Your task to perform on an android device: Open ESPN.com Image 0: 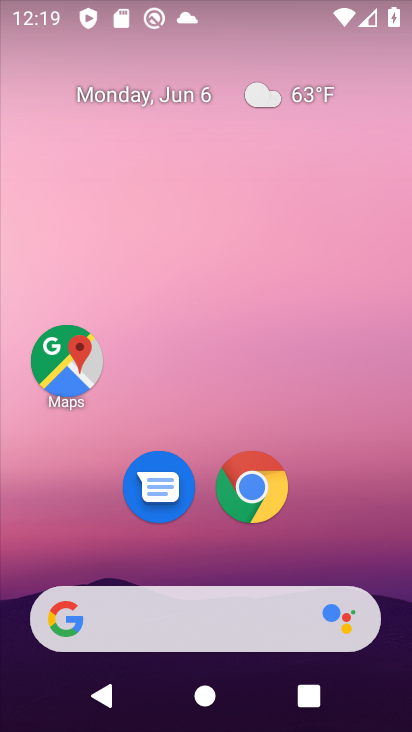
Step 0: click (253, 488)
Your task to perform on an android device: Open ESPN.com Image 1: 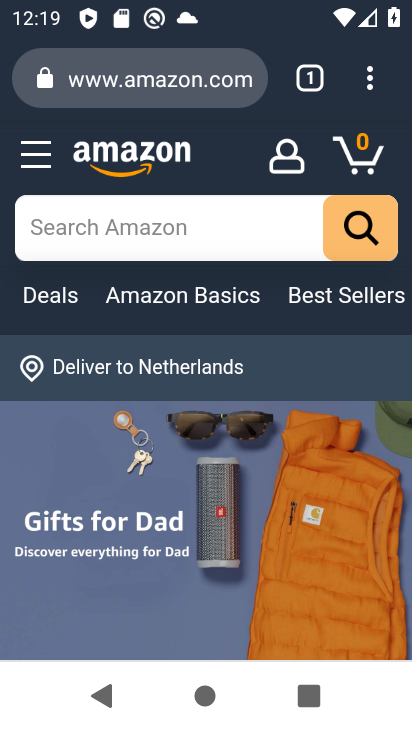
Step 1: click (180, 55)
Your task to perform on an android device: Open ESPN.com Image 2: 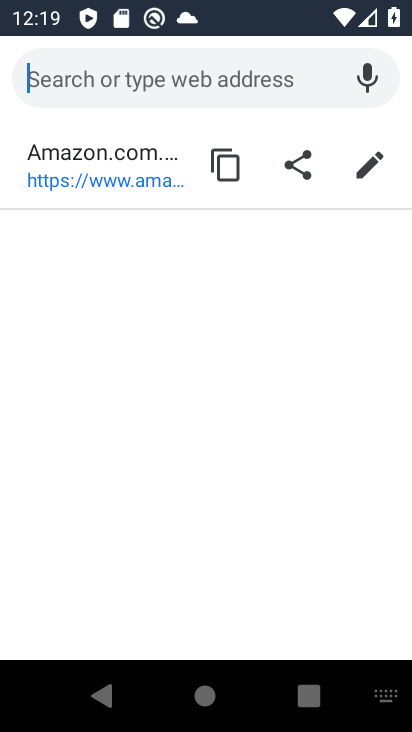
Step 2: type "espn.com"
Your task to perform on an android device: Open ESPN.com Image 3: 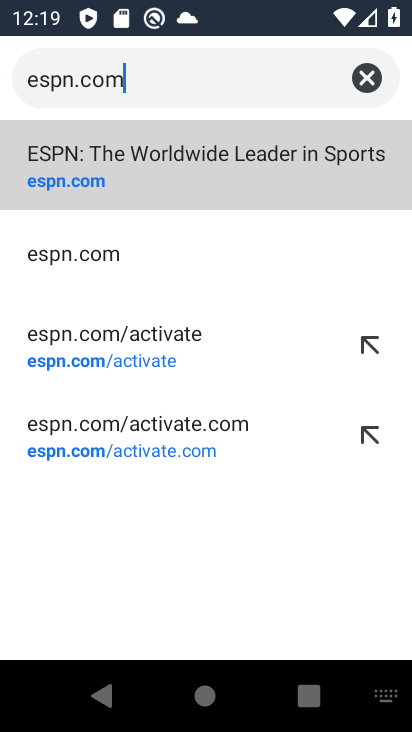
Step 3: click (51, 137)
Your task to perform on an android device: Open ESPN.com Image 4: 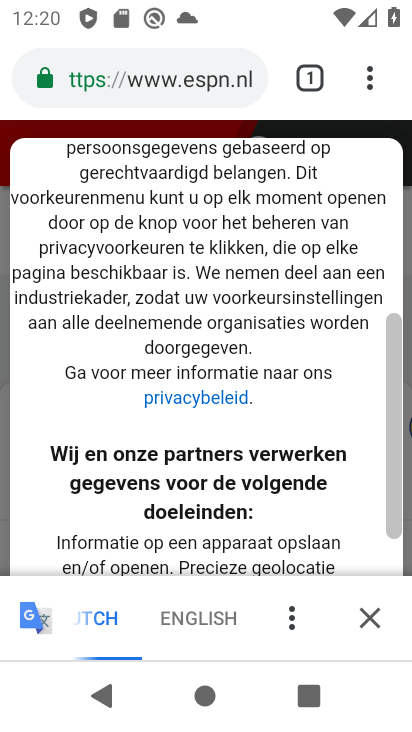
Step 4: task complete